Your task to perform on an android device: Open accessibility settings Image 0: 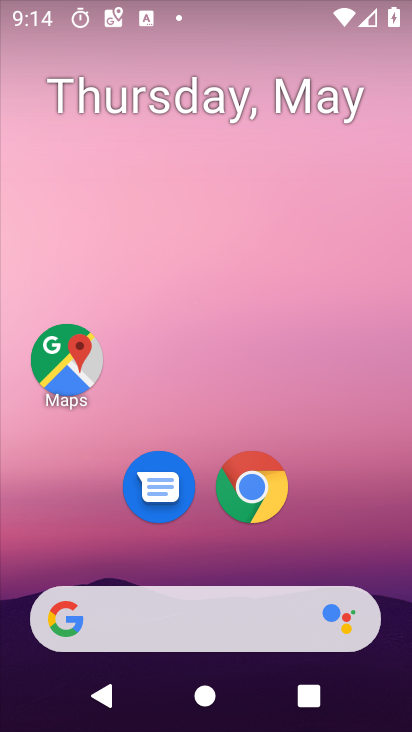
Step 0: drag from (324, 547) to (215, 49)
Your task to perform on an android device: Open accessibility settings Image 1: 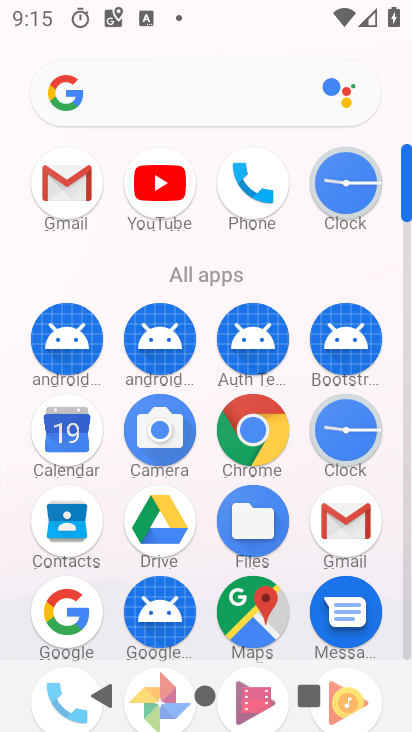
Step 1: drag from (201, 657) to (7, 367)
Your task to perform on an android device: Open accessibility settings Image 2: 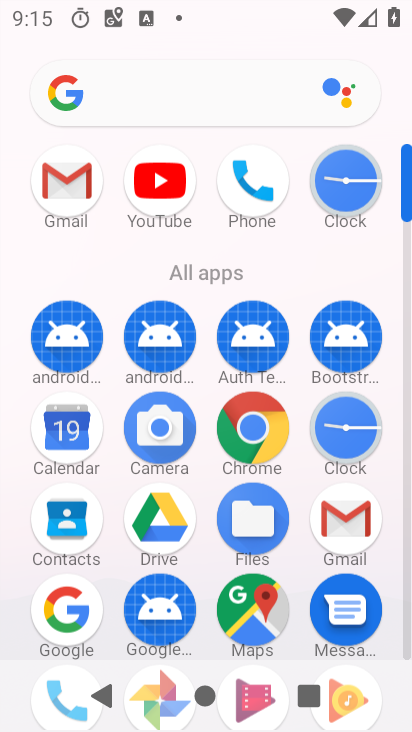
Step 2: click (185, 553)
Your task to perform on an android device: Open accessibility settings Image 3: 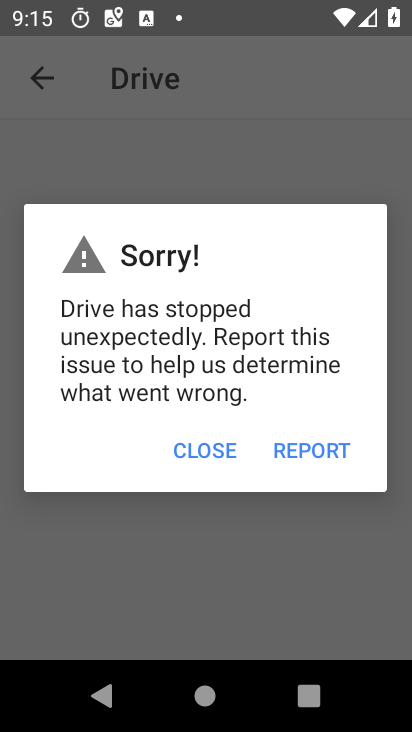
Step 3: press home button
Your task to perform on an android device: Open accessibility settings Image 4: 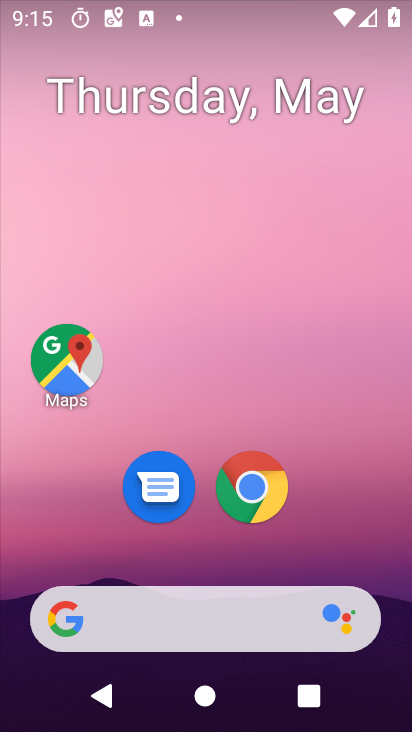
Step 4: drag from (334, 567) to (192, 39)
Your task to perform on an android device: Open accessibility settings Image 5: 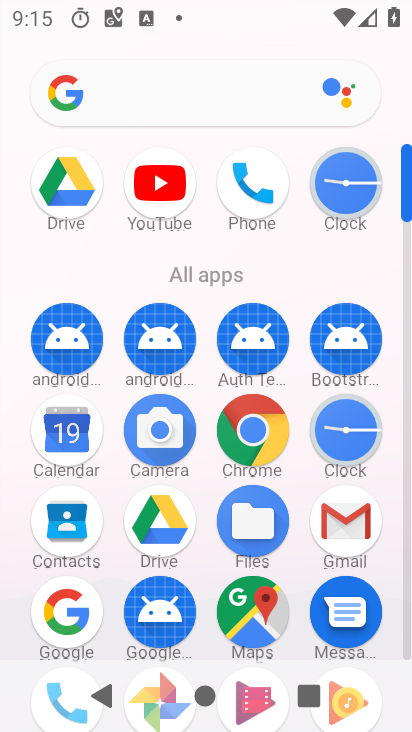
Step 5: drag from (172, 634) to (84, 0)
Your task to perform on an android device: Open accessibility settings Image 6: 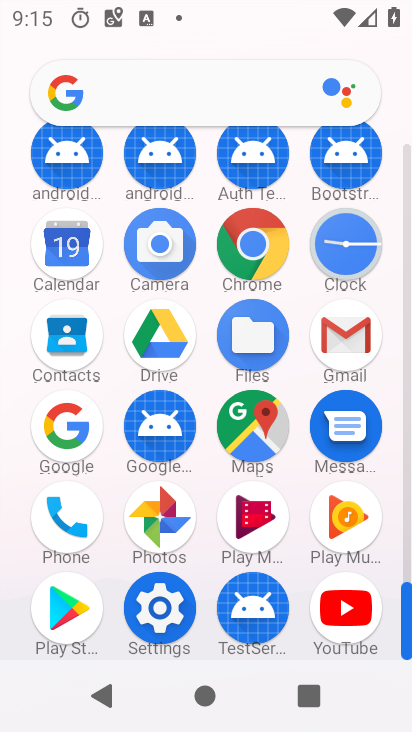
Step 6: click (155, 577)
Your task to perform on an android device: Open accessibility settings Image 7: 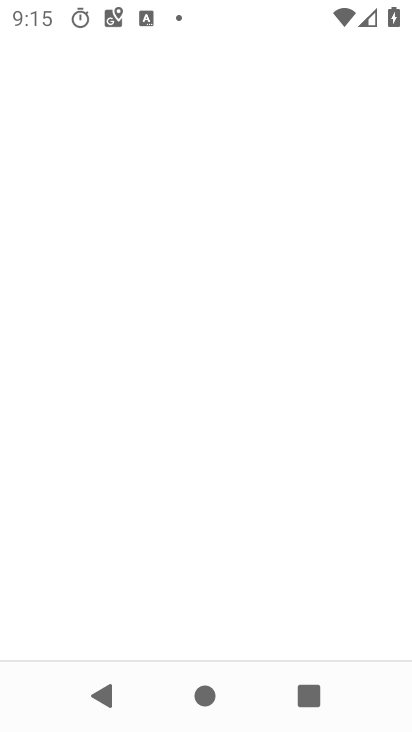
Step 7: click (158, 599)
Your task to perform on an android device: Open accessibility settings Image 8: 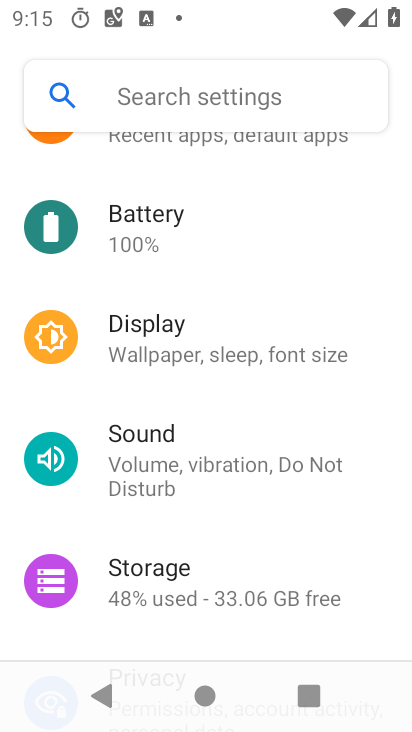
Step 8: drag from (183, 539) to (65, 22)
Your task to perform on an android device: Open accessibility settings Image 9: 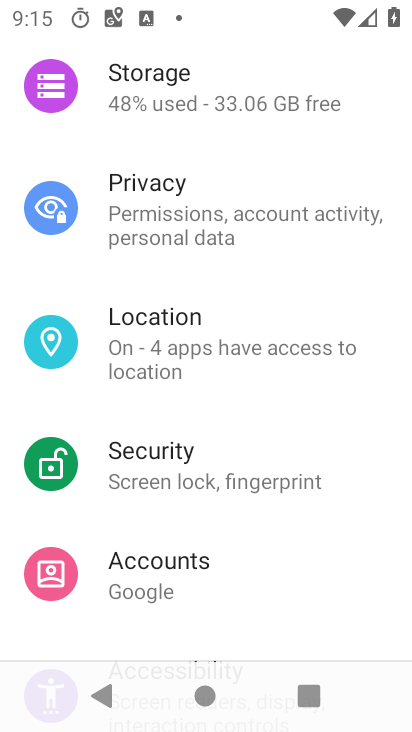
Step 9: drag from (172, 540) to (145, 370)
Your task to perform on an android device: Open accessibility settings Image 10: 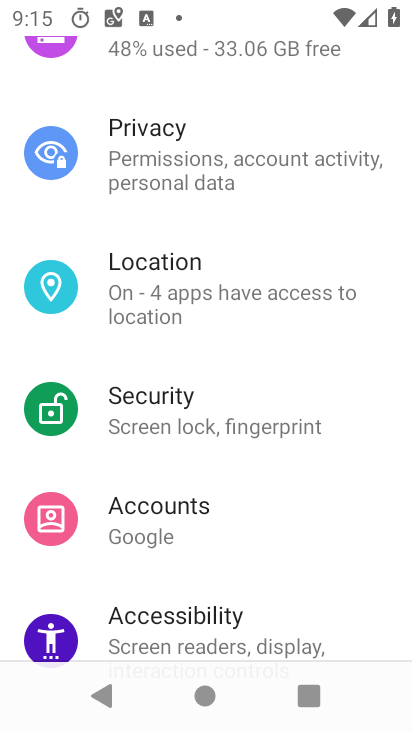
Step 10: click (169, 619)
Your task to perform on an android device: Open accessibility settings Image 11: 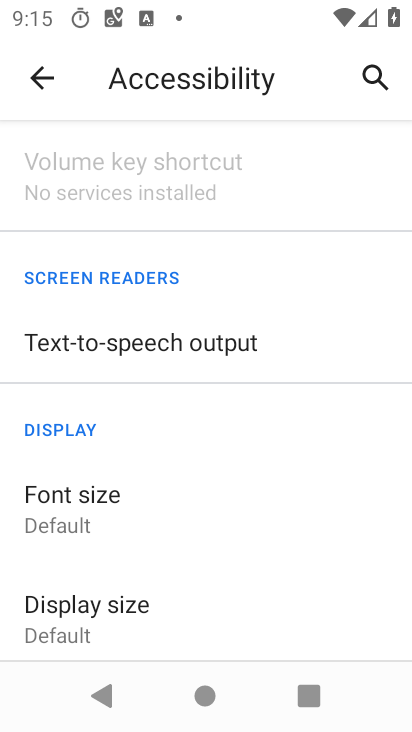
Step 11: task complete